Your task to perform on an android device: find which apps use the phone's location Image 0: 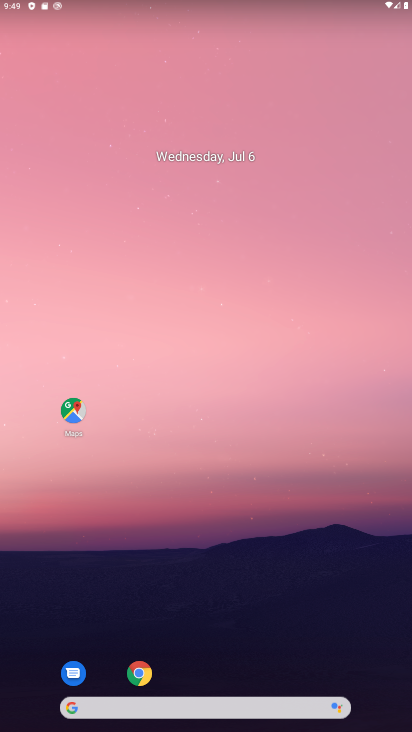
Step 0: drag from (219, 10) to (229, 271)
Your task to perform on an android device: find which apps use the phone's location Image 1: 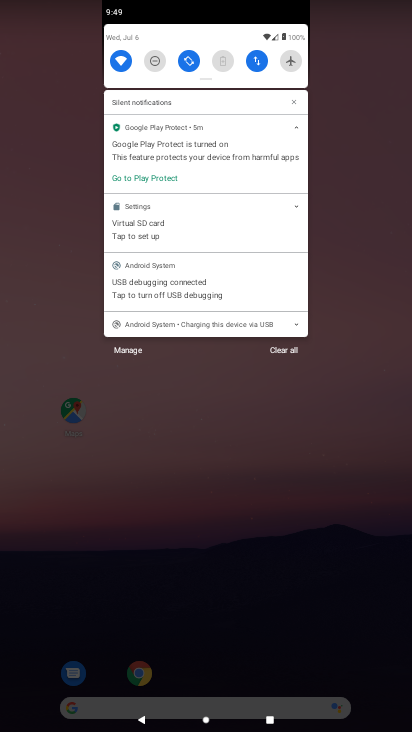
Step 1: drag from (209, 43) to (274, 385)
Your task to perform on an android device: find which apps use the phone's location Image 2: 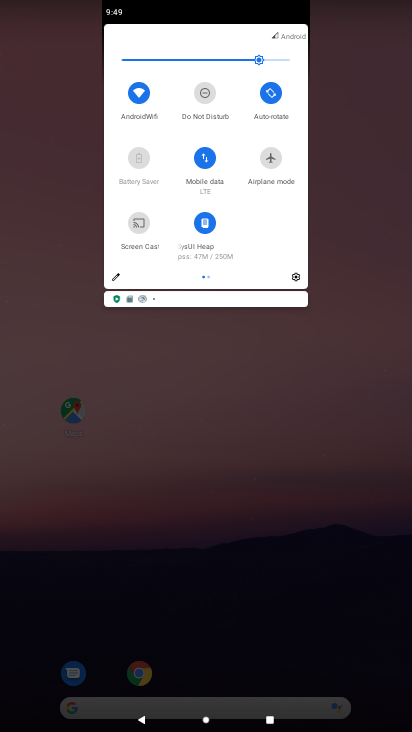
Step 2: click (293, 278)
Your task to perform on an android device: find which apps use the phone's location Image 3: 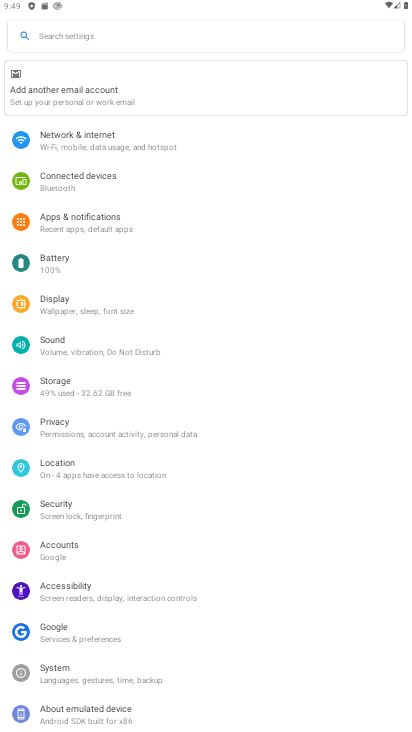
Step 3: click (75, 483)
Your task to perform on an android device: find which apps use the phone's location Image 4: 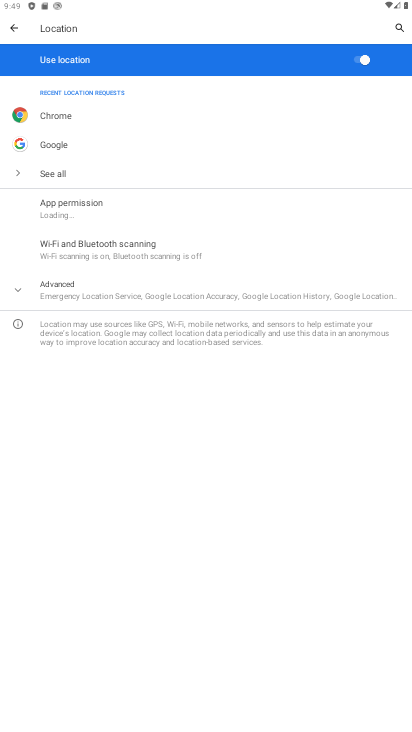
Step 4: click (57, 174)
Your task to perform on an android device: find which apps use the phone's location Image 5: 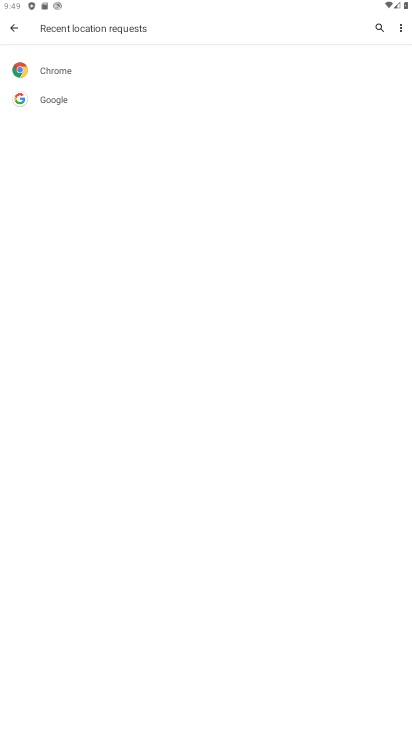
Step 5: task complete